Your task to perform on an android device: What's the weather going to be this weekend? Image 0: 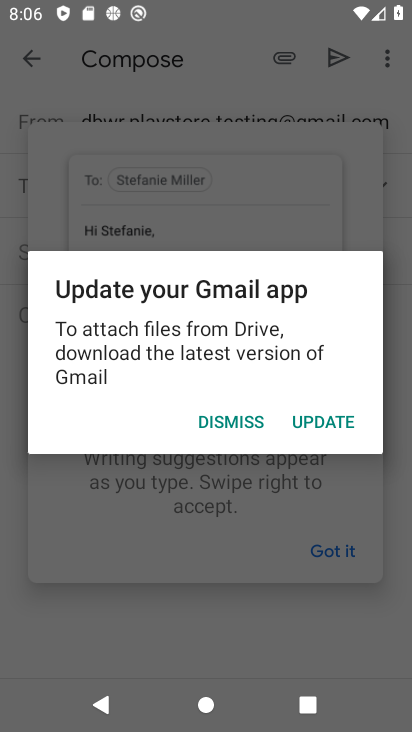
Step 0: press home button
Your task to perform on an android device: What's the weather going to be this weekend? Image 1: 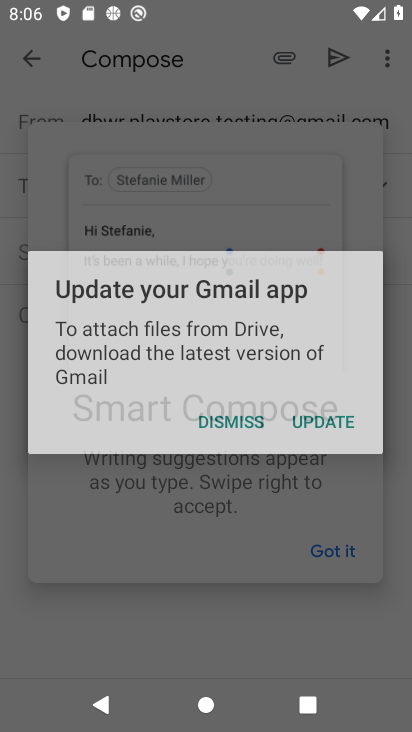
Step 1: press home button
Your task to perform on an android device: What's the weather going to be this weekend? Image 2: 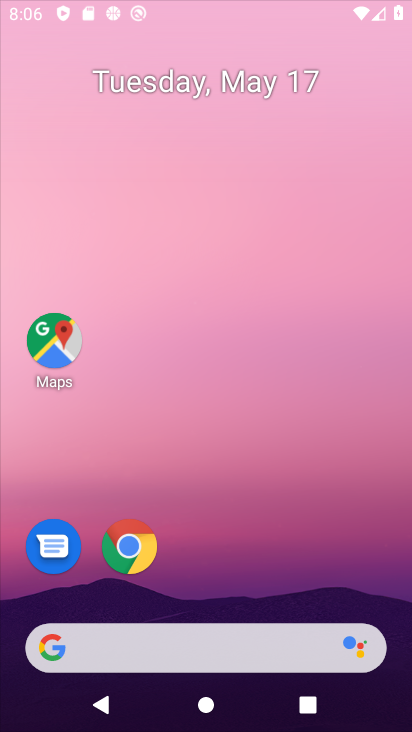
Step 2: press home button
Your task to perform on an android device: What's the weather going to be this weekend? Image 3: 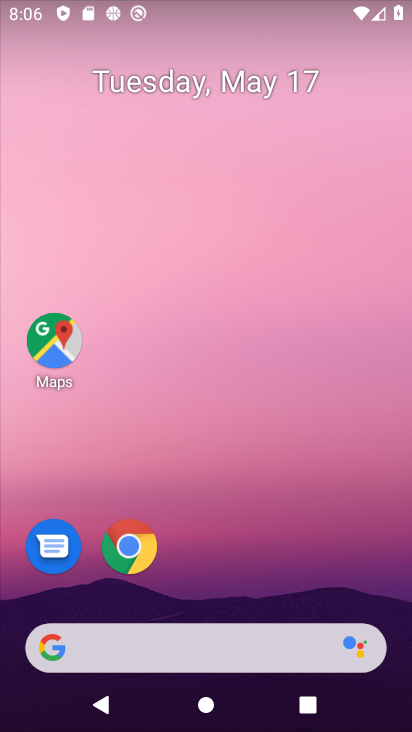
Step 3: drag from (237, 666) to (178, 100)
Your task to perform on an android device: What's the weather going to be this weekend? Image 4: 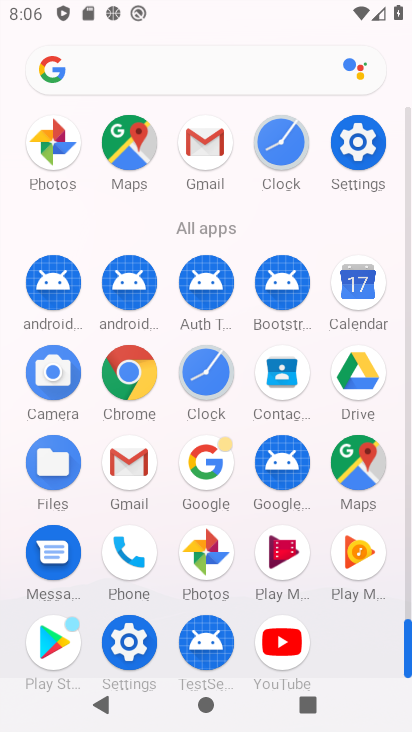
Step 4: press back button
Your task to perform on an android device: What's the weather going to be this weekend? Image 5: 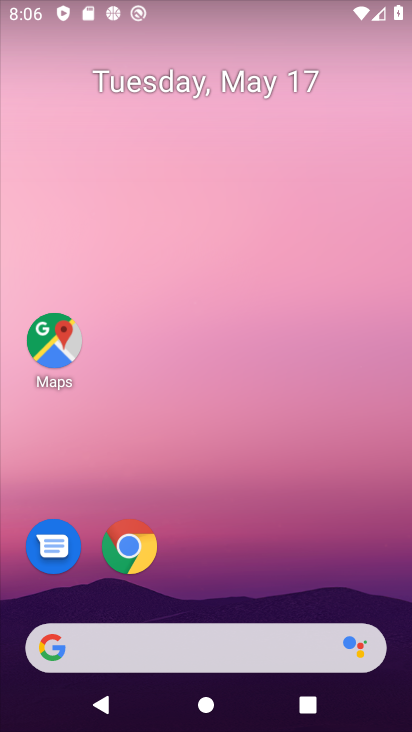
Step 5: drag from (2, 156) to (369, 360)
Your task to perform on an android device: What's the weather going to be this weekend? Image 6: 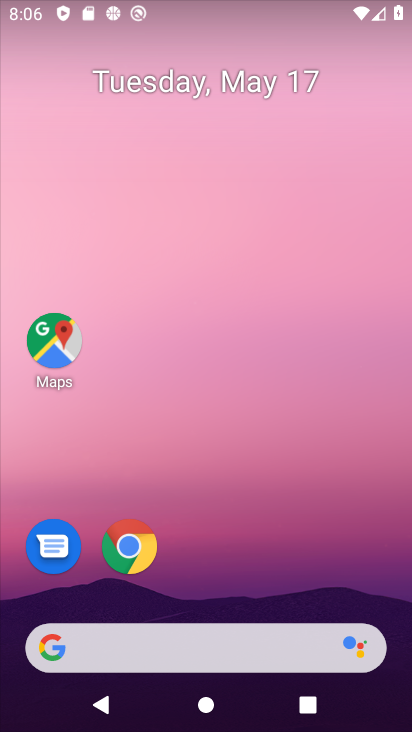
Step 6: drag from (15, 266) to (402, 434)
Your task to perform on an android device: What's the weather going to be this weekend? Image 7: 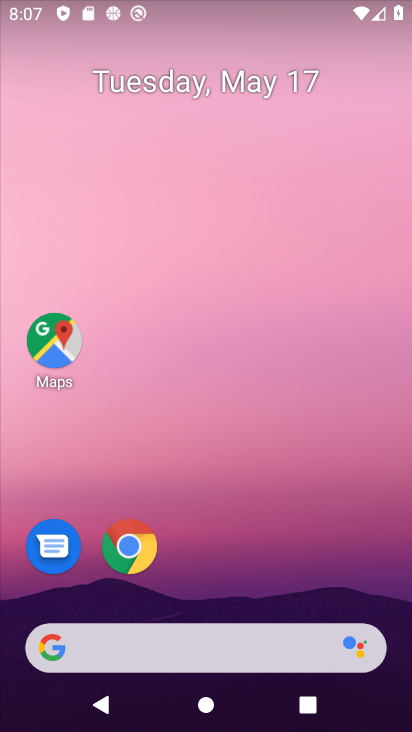
Step 7: drag from (7, 248) to (357, 712)
Your task to perform on an android device: What's the weather going to be this weekend? Image 8: 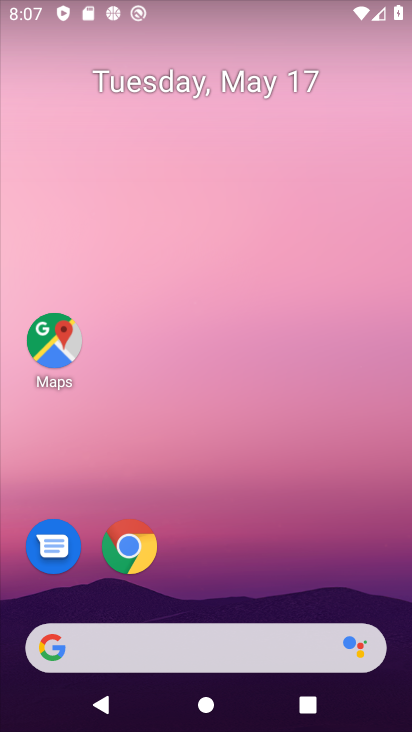
Step 8: drag from (3, 240) to (410, 390)
Your task to perform on an android device: What's the weather going to be this weekend? Image 9: 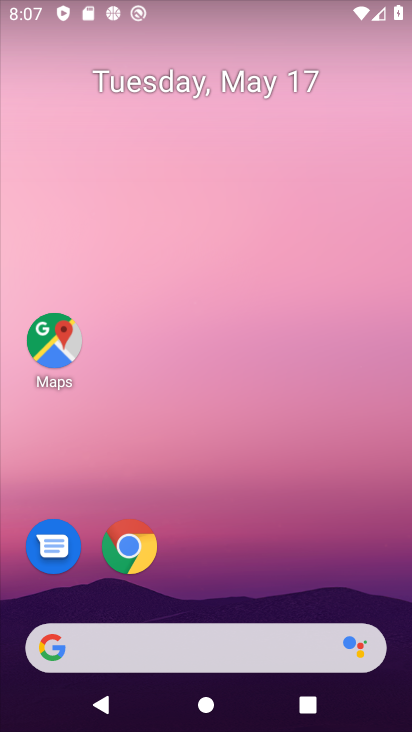
Step 9: drag from (8, 188) to (397, 440)
Your task to perform on an android device: What's the weather going to be this weekend? Image 10: 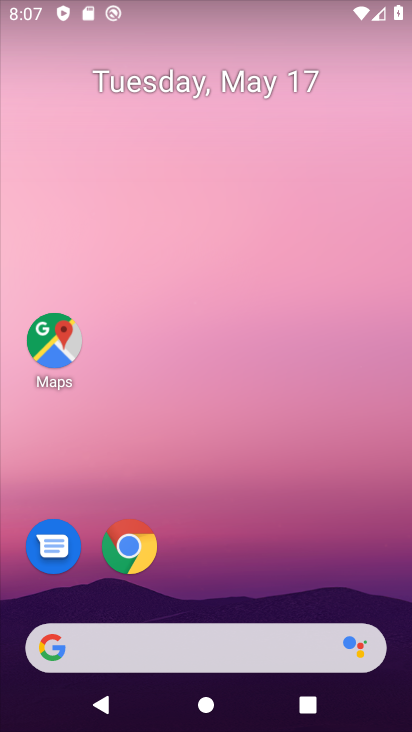
Step 10: drag from (16, 237) to (375, 365)
Your task to perform on an android device: What's the weather going to be this weekend? Image 11: 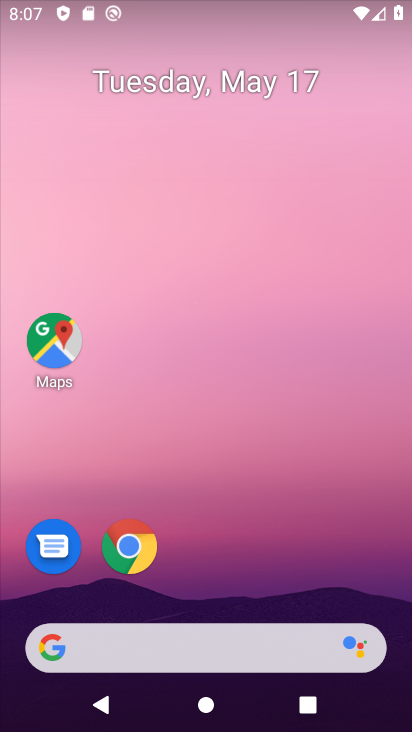
Step 11: drag from (8, 249) to (344, 363)
Your task to perform on an android device: What's the weather going to be this weekend? Image 12: 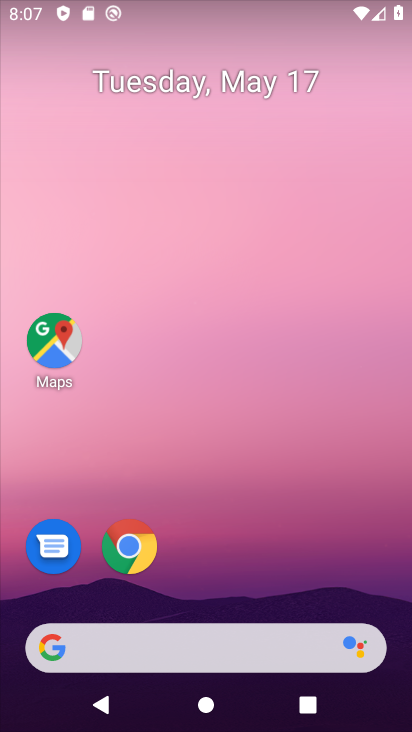
Step 12: drag from (10, 203) to (356, 374)
Your task to perform on an android device: What's the weather going to be this weekend? Image 13: 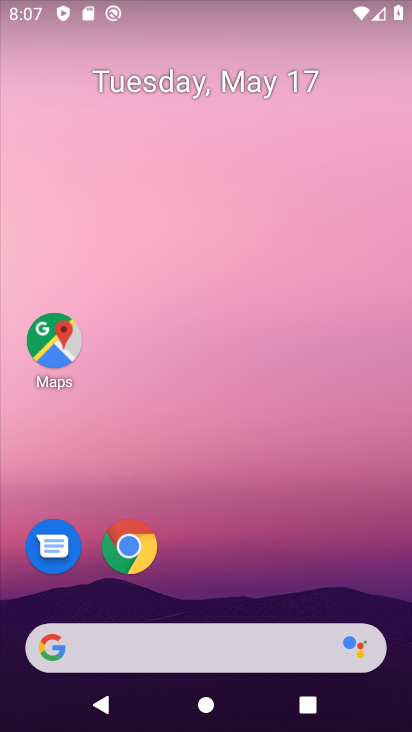
Step 13: drag from (24, 227) to (387, 411)
Your task to perform on an android device: What's the weather going to be this weekend? Image 14: 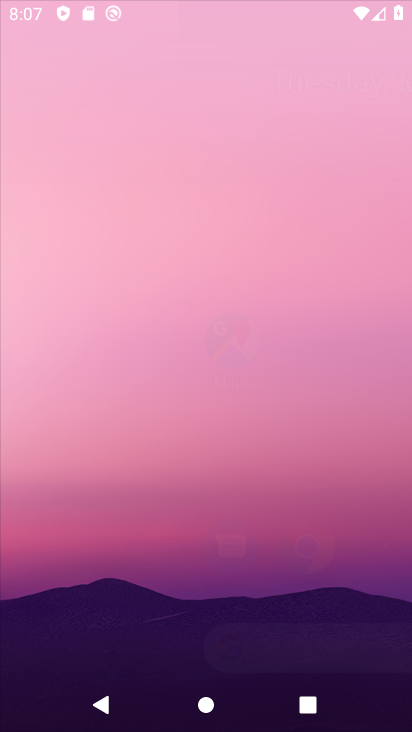
Step 14: drag from (35, 142) to (406, 413)
Your task to perform on an android device: What's the weather going to be this weekend? Image 15: 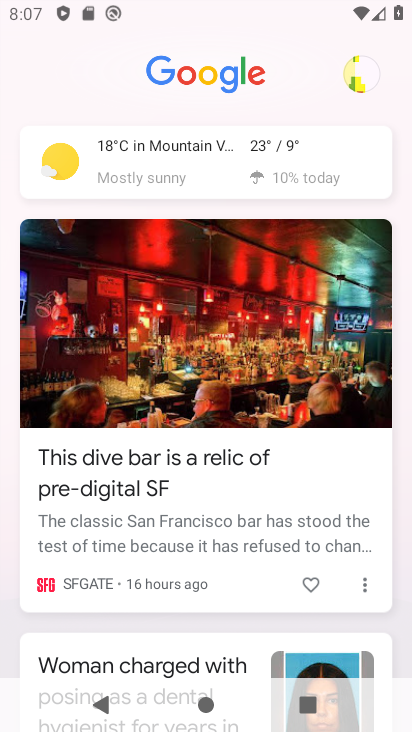
Step 15: click (202, 172)
Your task to perform on an android device: What's the weather going to be this weekend? Image 16: 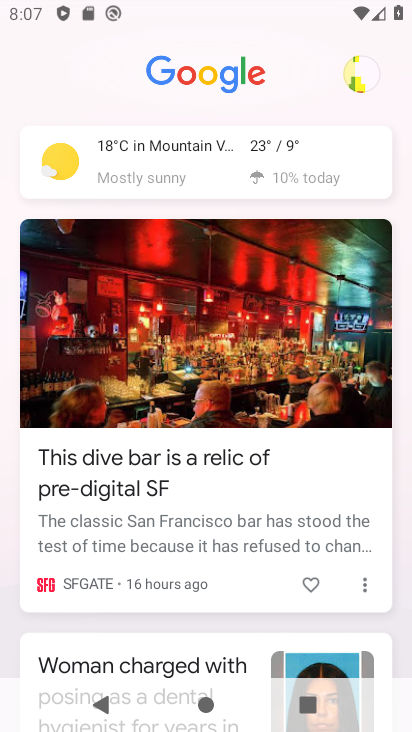
Step 16: click (202, 172)
Your task to perform on an android device: What's the weather going to be this weekend? Image 17: 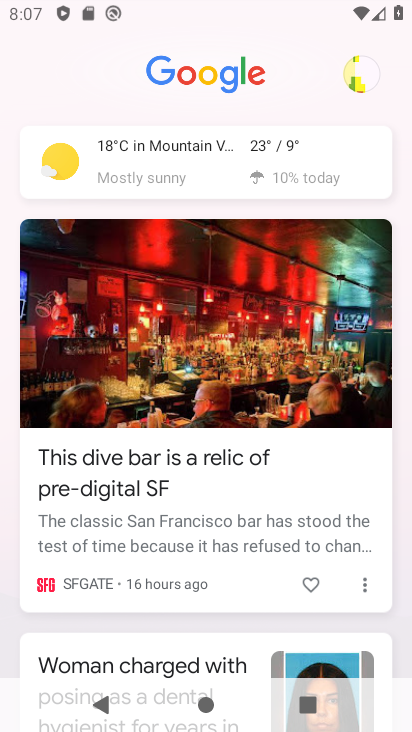
Step 17: click (202, 172)
Your task to perform on an android device: What's the weather going to be this weekend? Image 18: 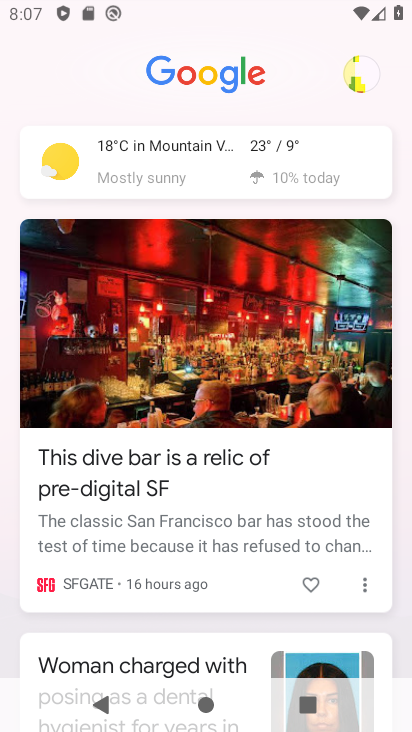
Step 18: click (202, 171)
Your task to perform on an android device: What's the weather going to be this weekend? Image 19: 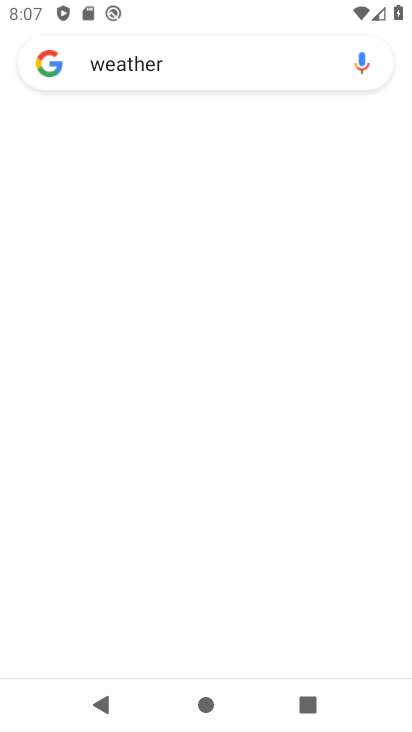
Step 19: click (202, 171)
Your task to perform on an android device: What's the weather going to be this weekend? Image 20: 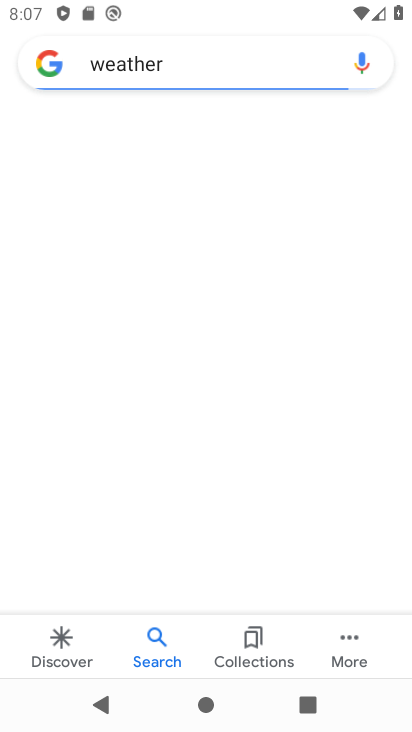
Step 20: click (202, 170)
Your task to perform on an android device: What's the weather going to be this weekend? Image 21: 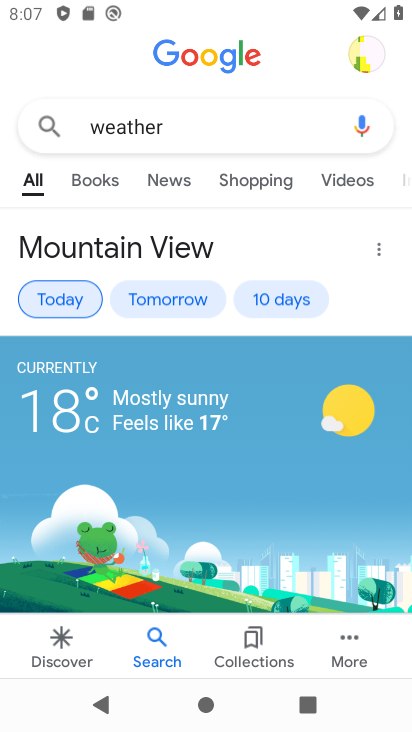
Step 21: task complete